Your task to perform on an android device: read, delete, or share a saved page in the chrome app Image 0: 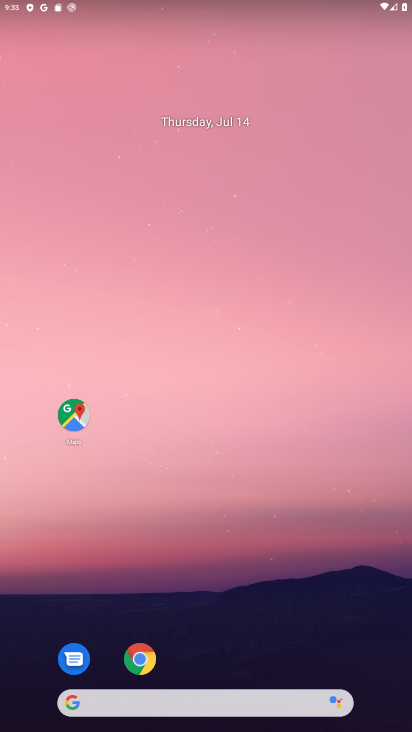
Step 0: drag from (311, 588) to (248, 89)
Your task to perform on an android device: read, delete, or share a saved page in the chrome app Image 1: 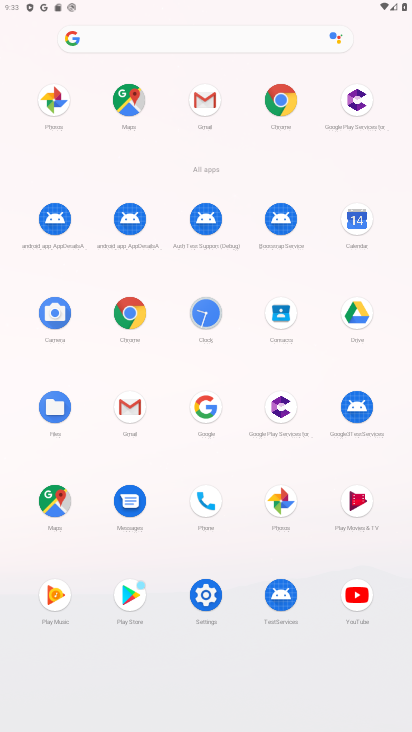
Step 1: click (281, 99)
Your task to perform on an android device: read, delete, or share a saved page in the chrome app Image 2: 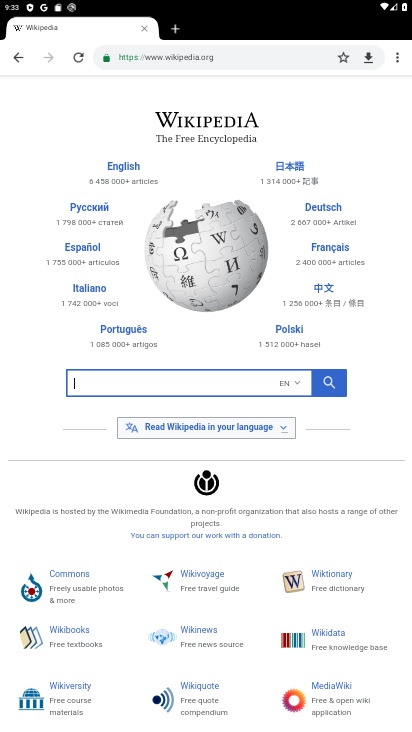
Step 2: task complete